Your task to perform on an android device: Check the weather Image 0: 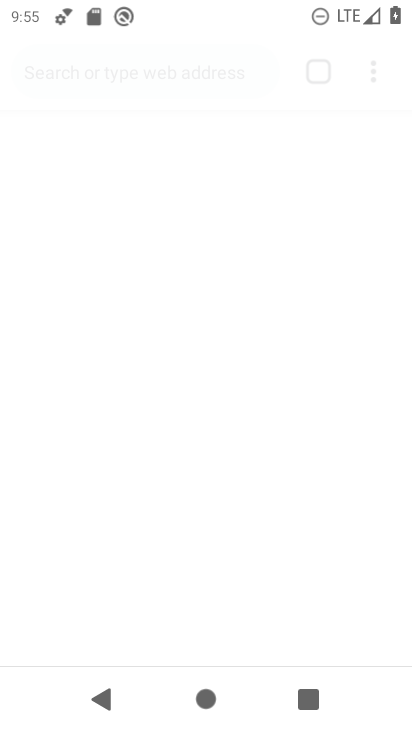
Step 0: drag from (207, 591) to (229, 237)
Your task to perform on an android device: Check the weather Image 1: 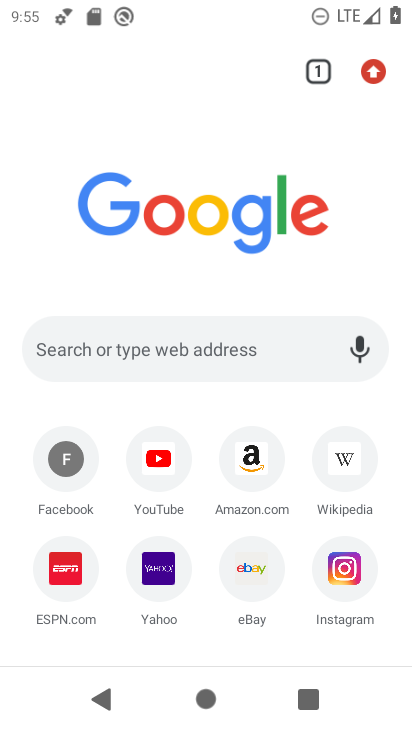
Step 1: press home button
Your task to perform on an android device: Check the weather Image 2: 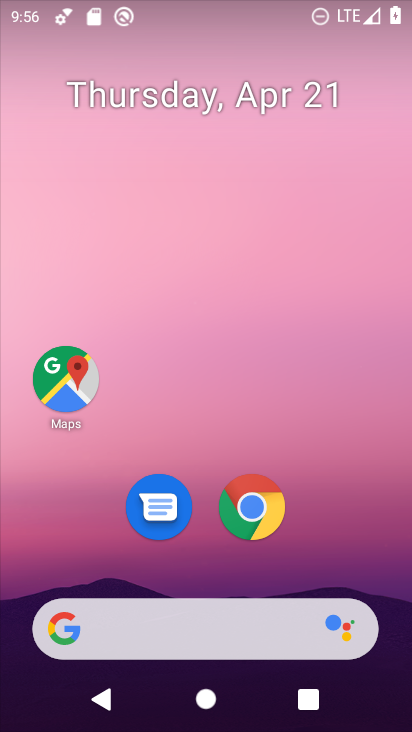
Step 2: click (275, 100)
Your task to perform on an android device: Check the weather Image 3: 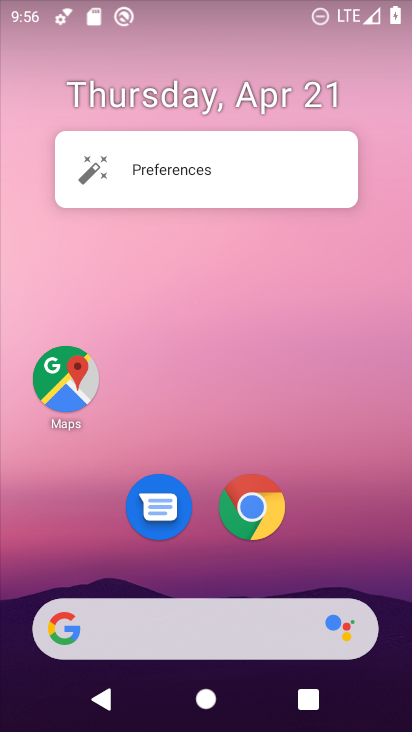
Step 3: click (150, 104)
Your task to perform on an android device: Check the weather Image 4: 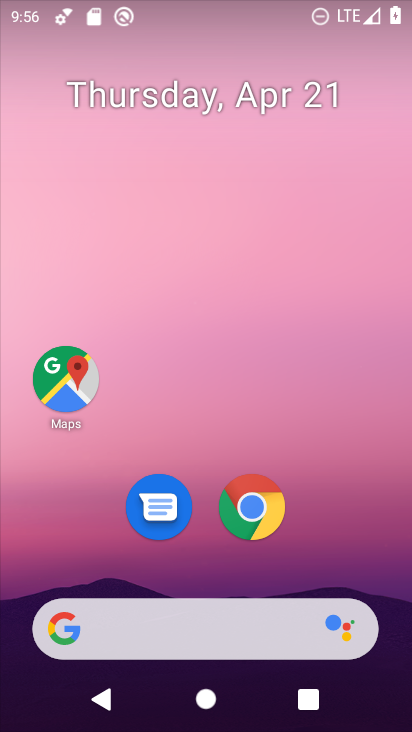
Step 4: drag from (188, 580) to (172, 243)
Your task to perform on an android device: Check the weather Image 5: 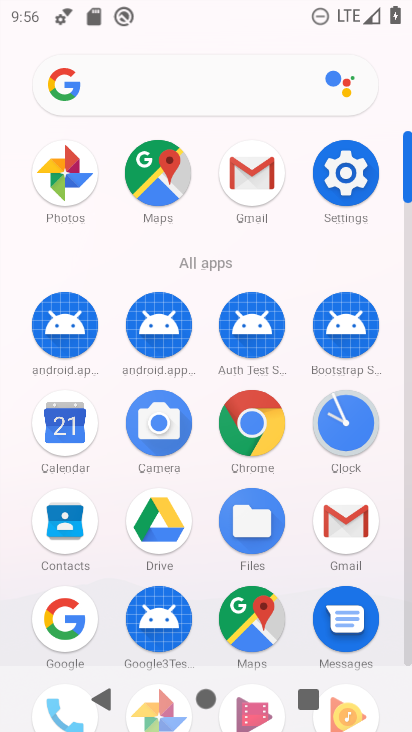
Step 5: drag from (212, 594) to (209, 319)
Your task to perform on an android device: Check the weather Image 6: 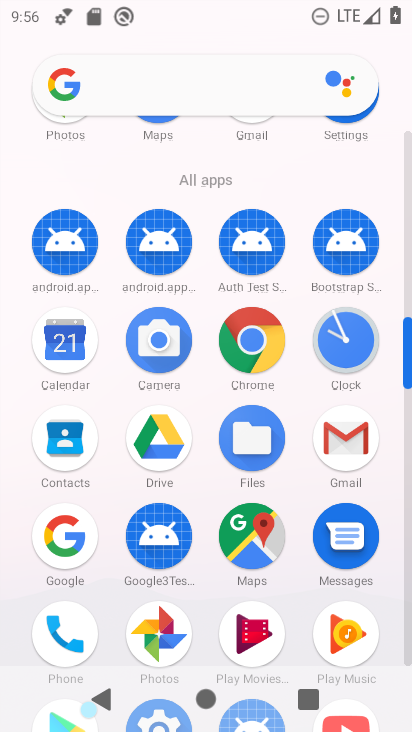
Step 6: click (54, 536)
Your task to perform on an android device: Check the weather Image 7: 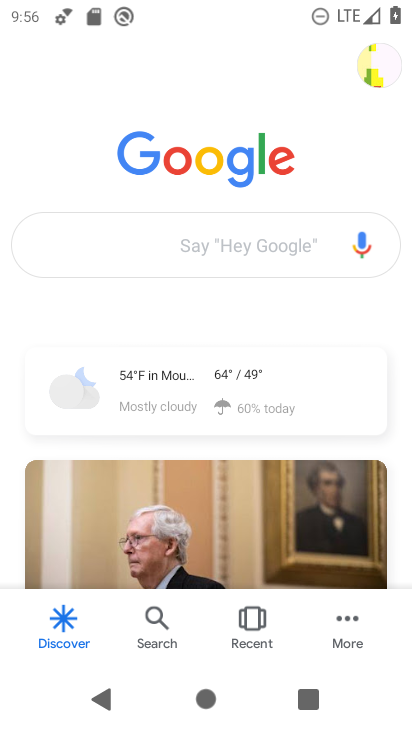
Step 7: click (178, 399)
Your task to perform on an android device: Check the weather Image 8: 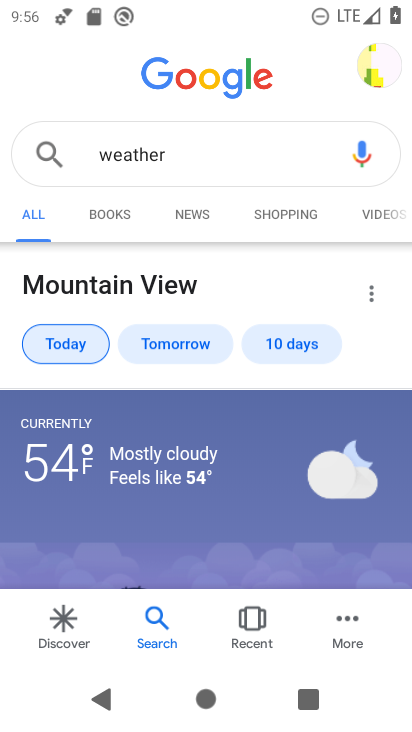
Step 8: task complete